Your task to perform on an android device: Open notification settings Image 0: 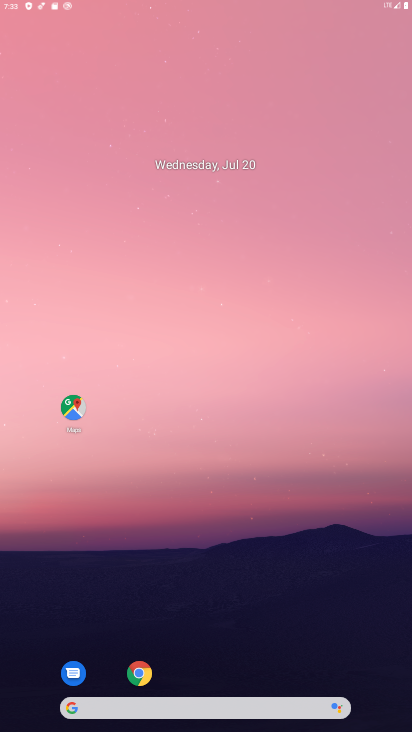
Step 0: click (284, 46)
Your task to perform on an android device: Open notification settings Image 1: 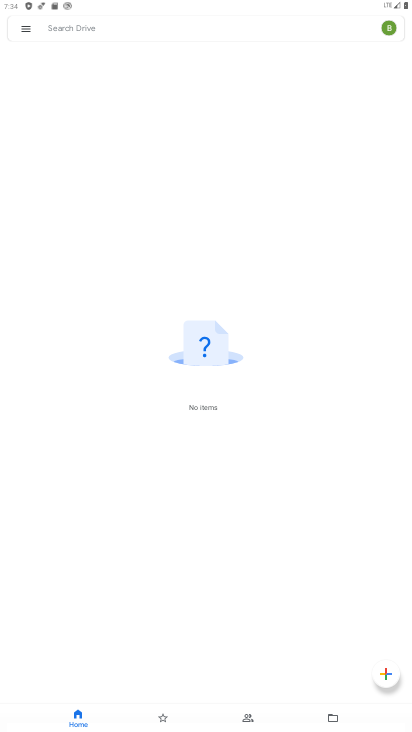
Step 1: press home button
Your task to perform on an android device: Open notification settings Image 2: 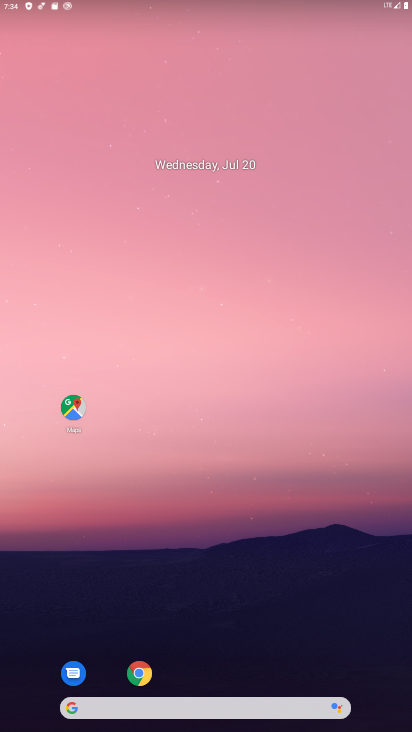
Step 2: drag from (256, 612) to (207, 54)
Your task to perform on an android device: Open notification settings Image 3: 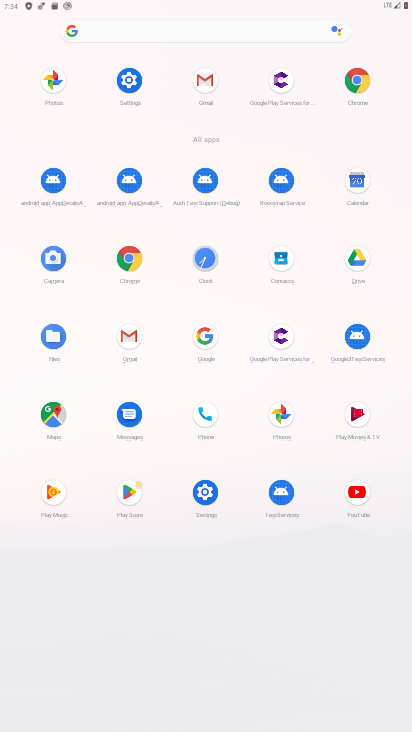
Step 3: click (135, 81)
Your task to perform on an android device: Open notification settings Image 4: 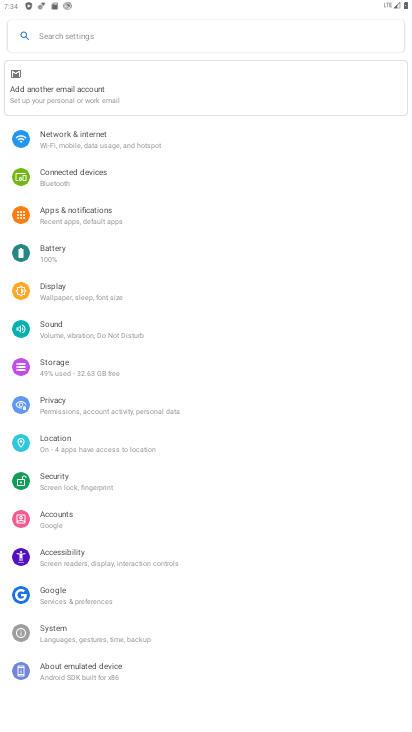
Step 4: click (95, 226)
Your task to perform on an android device: Open notification settings Image 5: 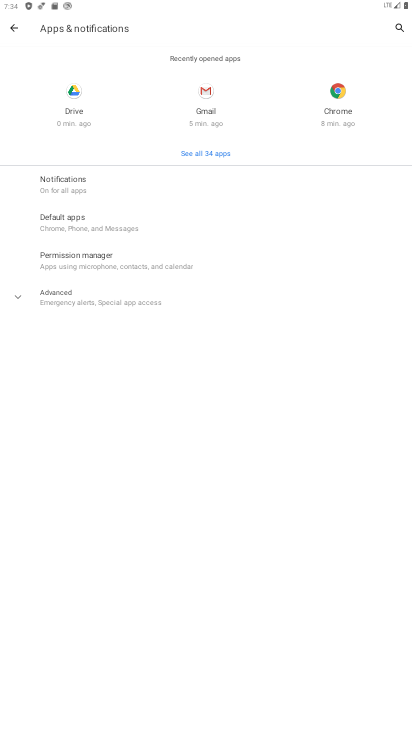
Step 5: click (76, 192)
Your task to perform on an android device: Open notification settings Image 6: 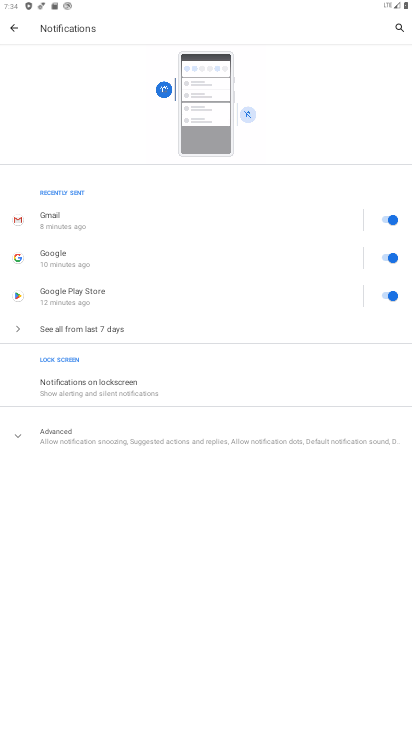
Step 6: task complete